Your task to perform on an android device: delete the emails in spam in the gmail app Image 0: 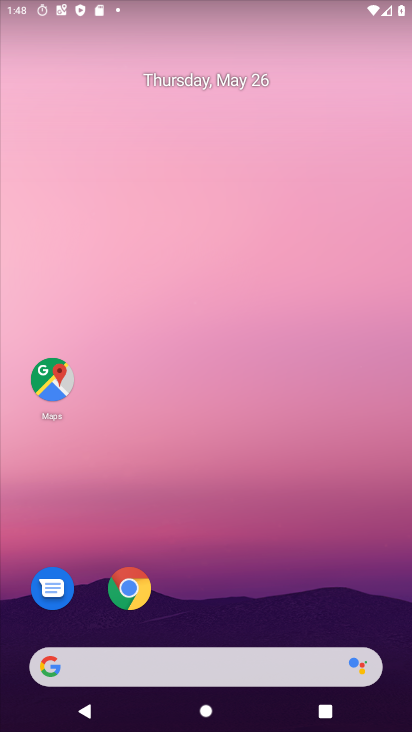
Step 0: drag from (401, 688) to (358, 258)
Your task to perform on an android device: delete the emails in spam in the gmail app Image 1: 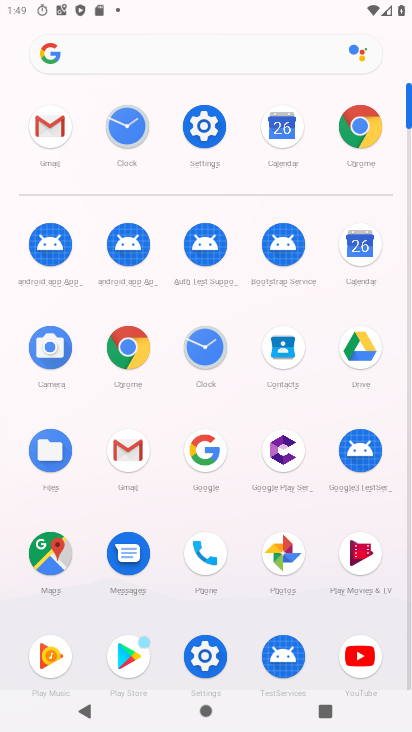
Step 1: click (131, 452)
Your task to perform on an android device: delete the emails in spam in the gmail app Image 2: 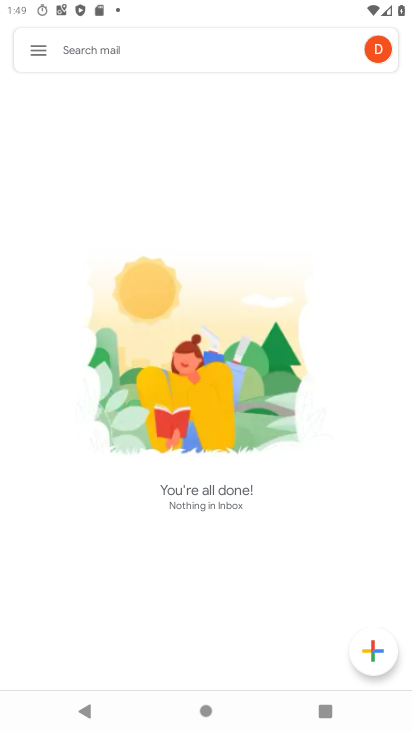
Step 2: click (39, 44)
Your task to perform on an android device: delete the emails in spam in the gmail app Image 3: 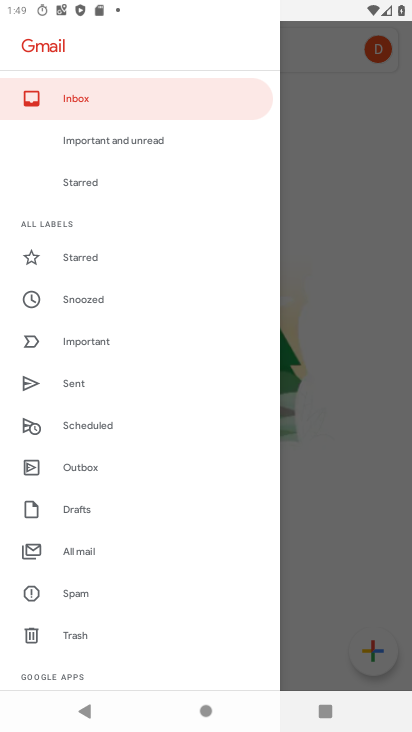
Step 3: click (62, 594)
Your task to perform on an android device: delete the emails in spam in the gmail app Image 4: 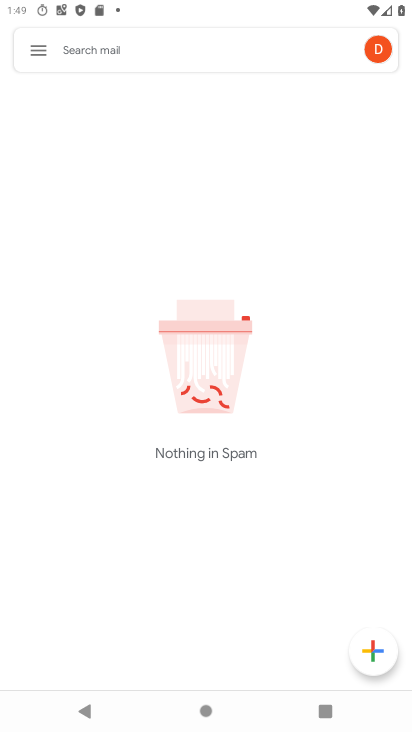
Step 4: task complete